Your task to perform on an android device: move a message to another label in the gmail app Image 0: 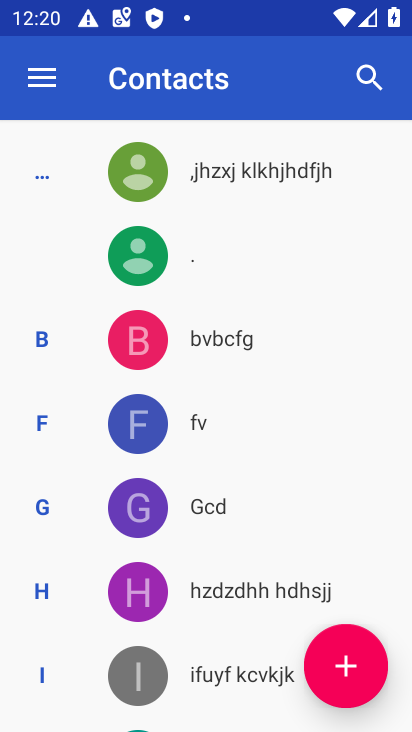
Step 0: press home button
Your task to perform on an android device: move a message to another label in the gmail app Image 1: 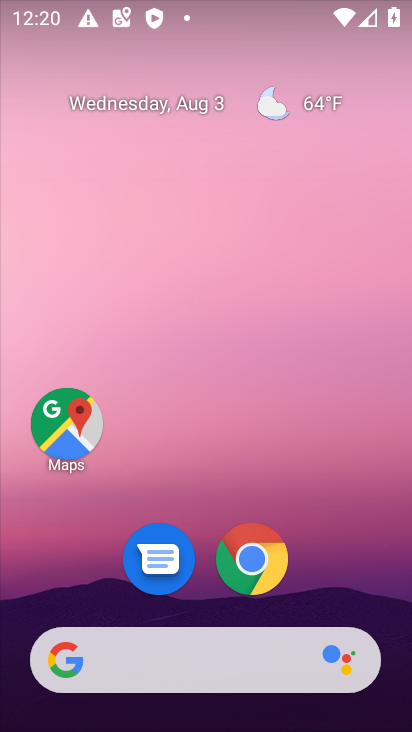
Step 1: drag from (210, 609) to (200, 135)
Your task to perform on an android device: move a message to another label in the gmail app Image 2: 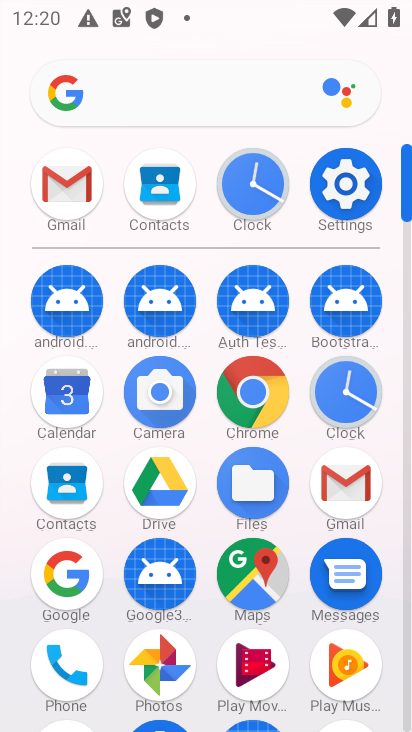
Step 2: click (350, 485)
Your task to perform on an android device: move a message to another label in the gmail app Image 3: 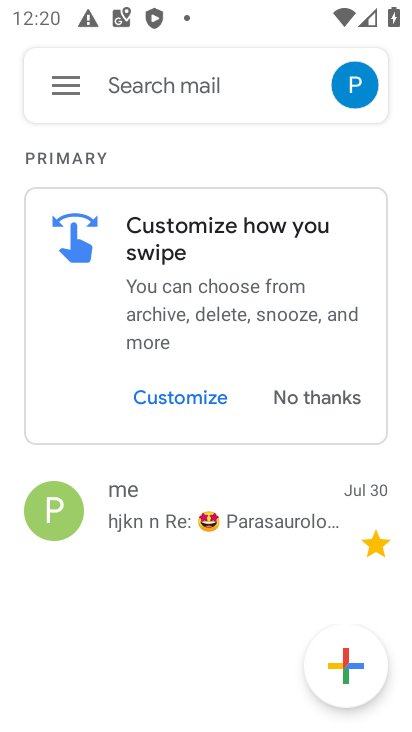
Step 3: click (225, 523)
Your task to perform on an android device: move a message to another label in the gmail app Image 4: 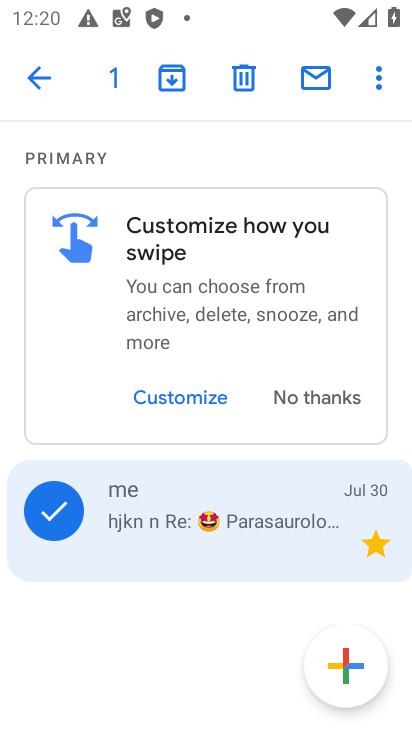
Step 4: click (380, 86)
Your task to perform on an android device: move a message to another label in the gmail app Image 5: 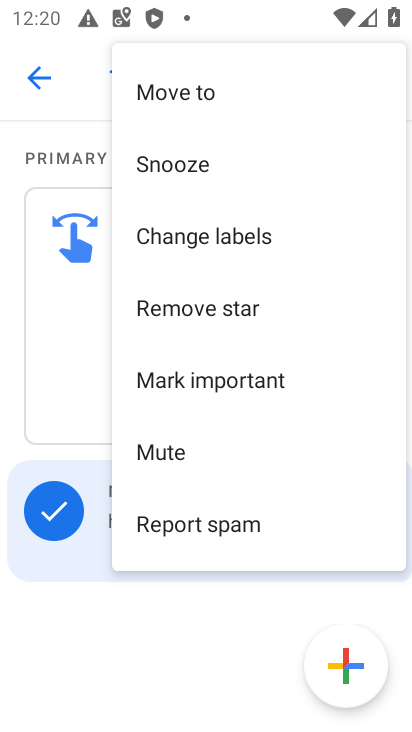
Step 5: click (186, 89)
Your task to perform on an android device: move a message to another label in the gmail app Image 6: 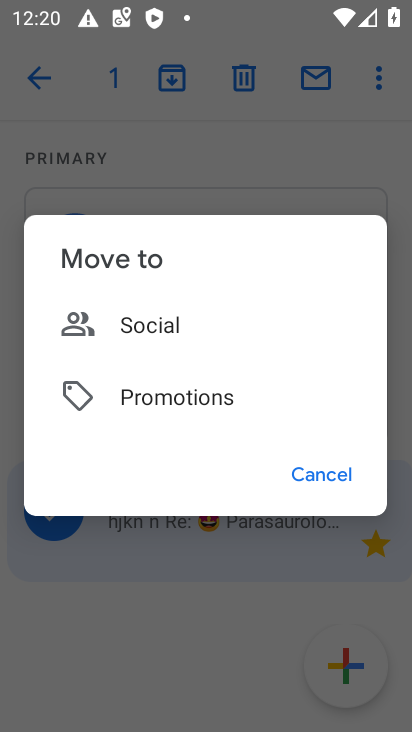
Step 6: click (160, 321)
Your task to perform on an android device: move a message to another label in the gmail app Image 7: 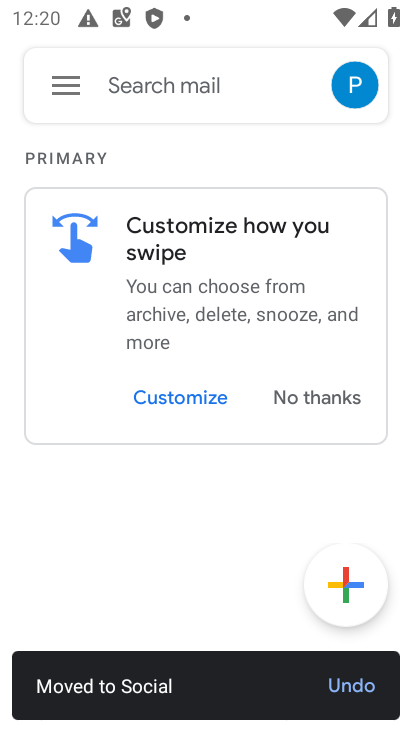
Step 7: task complete